Your task to perform on an android device: Open privacy settings Image 0: 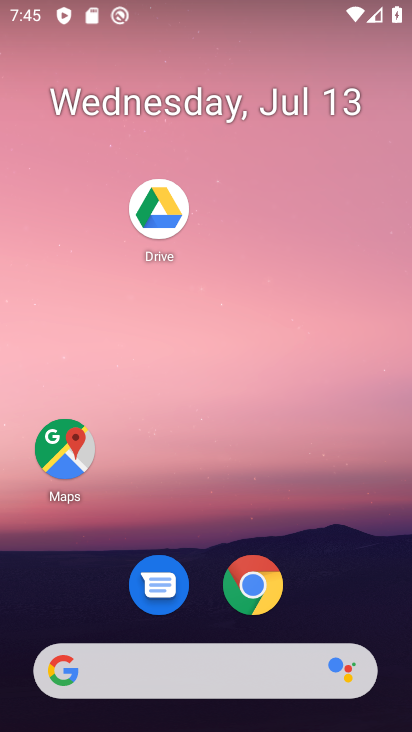
Step 0: click (401, 421)
Your task to perform on an android device: Open privacy settings Image 1: 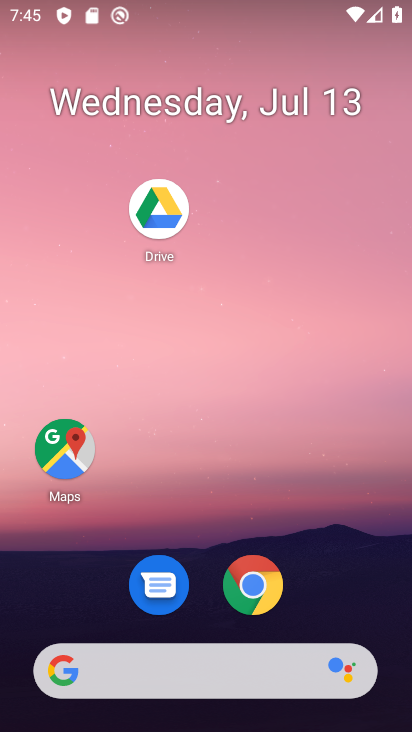
Step 1: drag from (252, 221) to (293, 49)
Your task to perform on an android device: Open privacy settings Image 2: 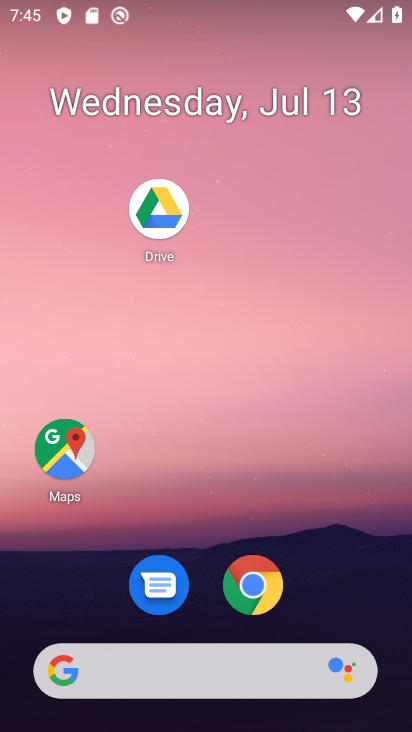
Step 2: drag from (200, 678) to (342, 54)
Your task to perform on an android device: Open privacy settings Image 3: 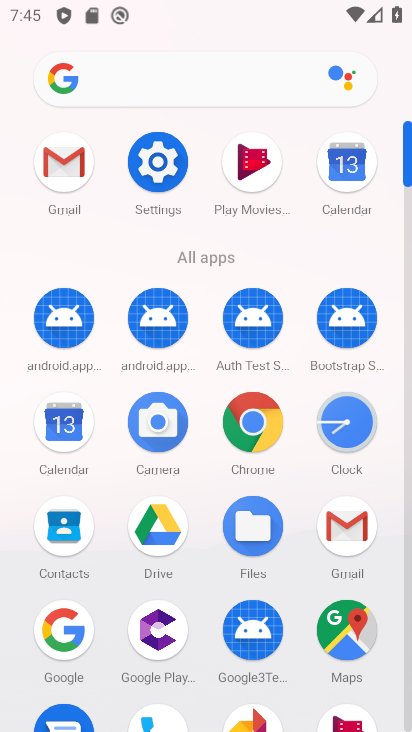
Step 3: click (157, 173)
Your task to perform on an android device: Open privacy settings Image 4: 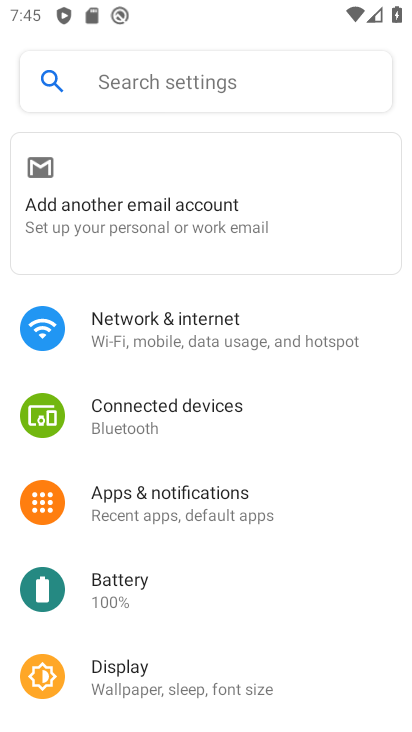
Step 4: drag from (253, 532) to (340, 126)
Your task to perform on an android device: Open privacy settings Image 5: 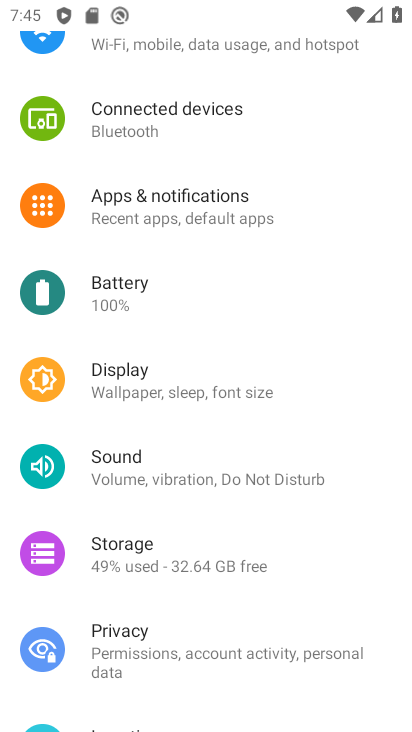
Step 5: click (141, 638)
Your task to perform on an android device: Open privacy settings Image 6: 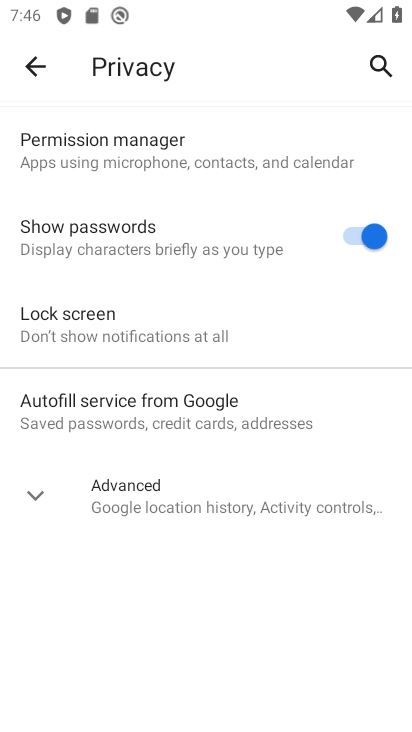
Step 6: task complete